Your task to perform on an android device: set the stopwatch Image 0: 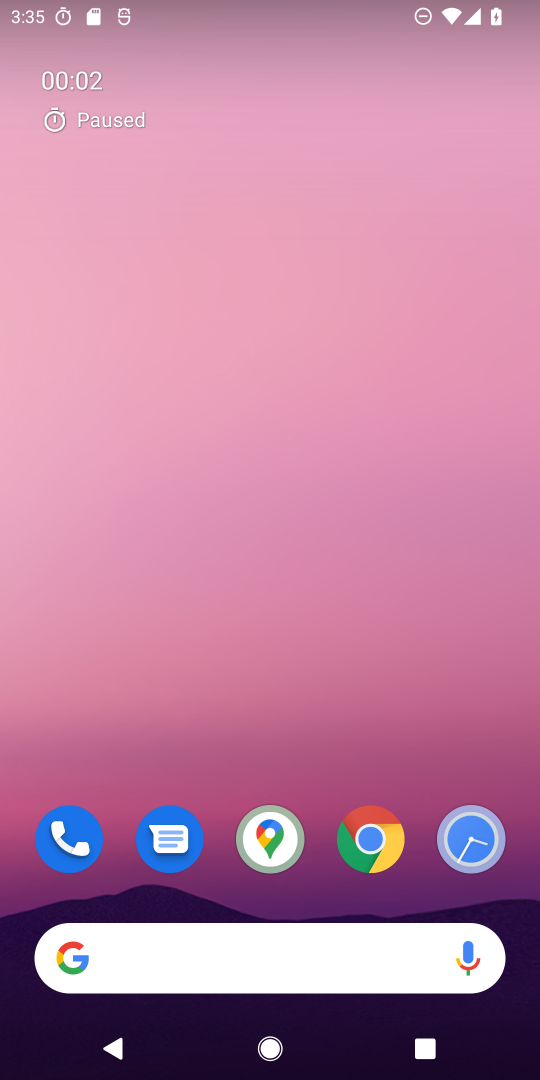
Step 0: click (471, 851)
Your task to perform on an android device: set the stopwatch Image 1: 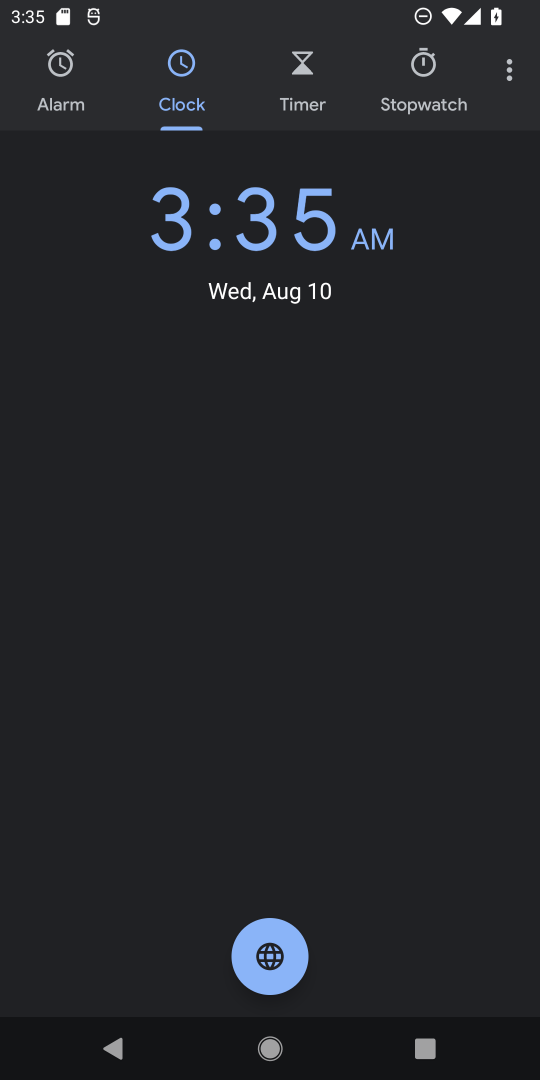
Step 1: click (426, 86)
Your task to perform on an android device: set the stopwatch Image 2: 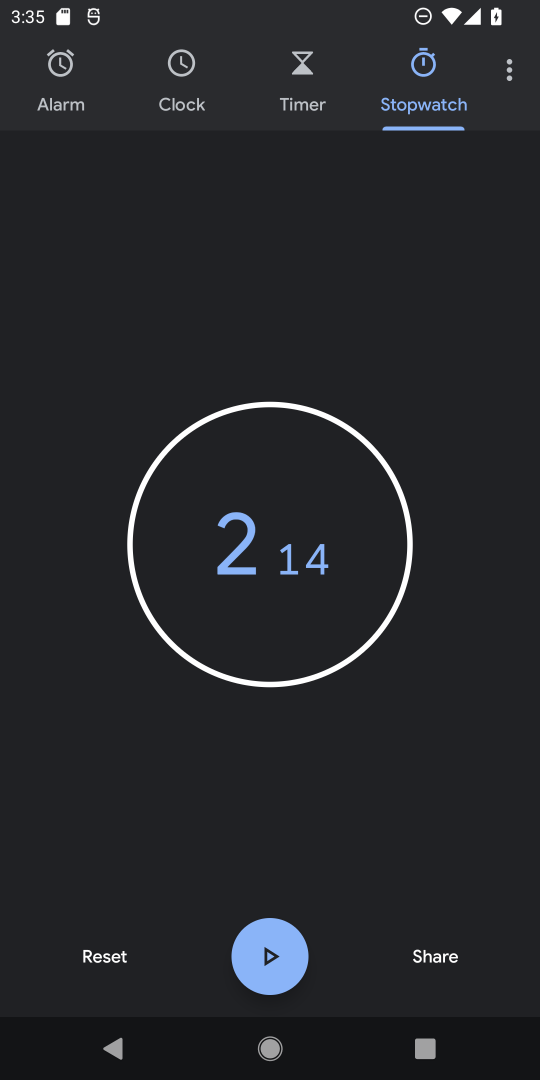
Step 2: click (259, 972)
Your task to perform on an android device: set the stopwatch Image 3: 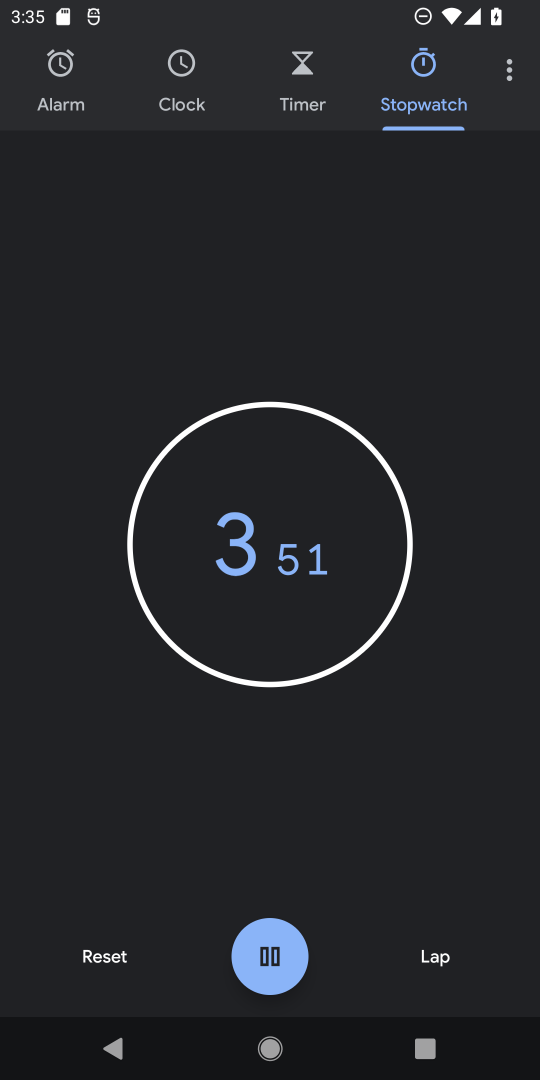
Step 3: click (269, 954)
Your task to perform on an android device: set the stopwatch Image 4: 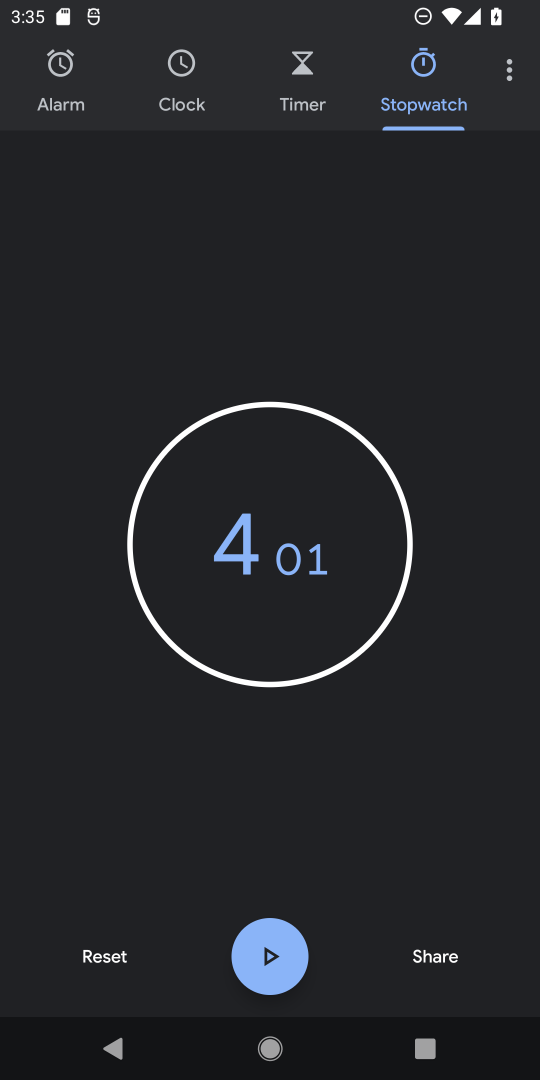
Step 4: task complete